Your task to perform on an android device: toggle javascript in the chrome app Image 0: 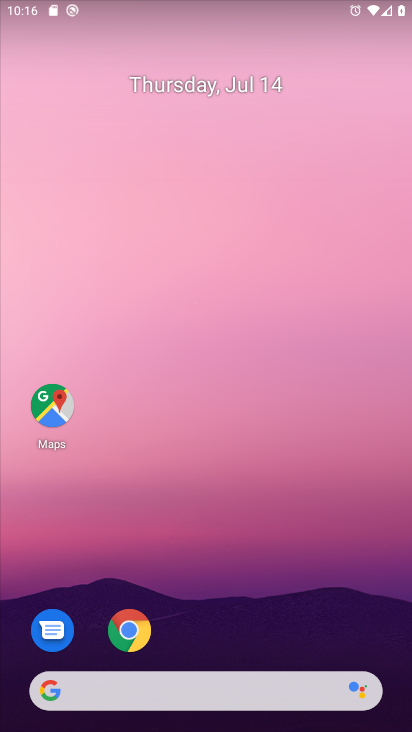
Step 0: click (245, 79)
Your task to perform on an android device: toggle javascript in the chrome app Image 1: 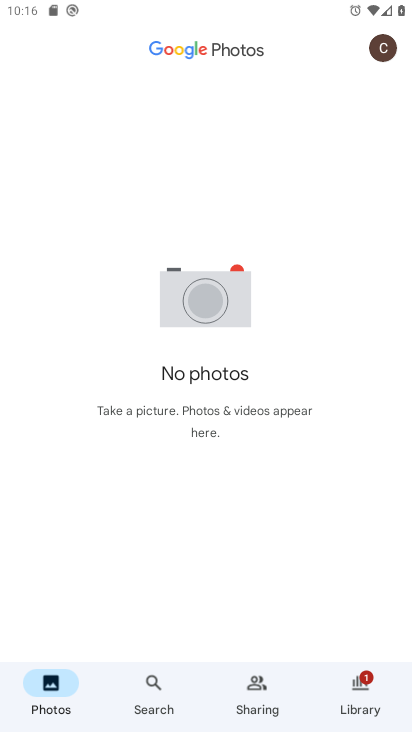
Step 1: press home button
Your task to perform on an android device: toggle javascript in the chrome app Image 2: 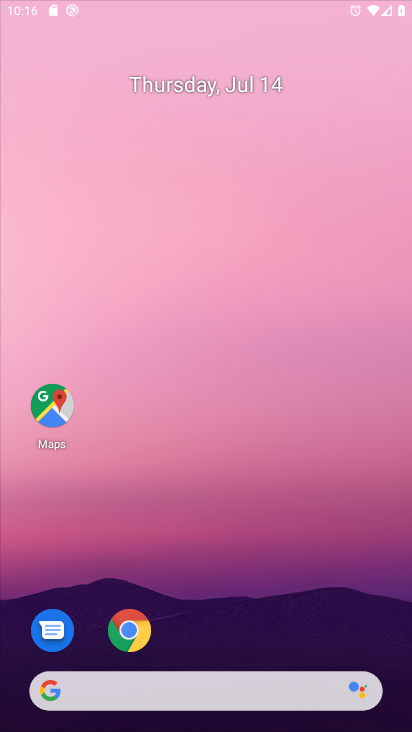
Step 2: drag from (175, 641) to (384, 73)
Your task to perform on an android device: toggle javascript in the chrome app Image 3: 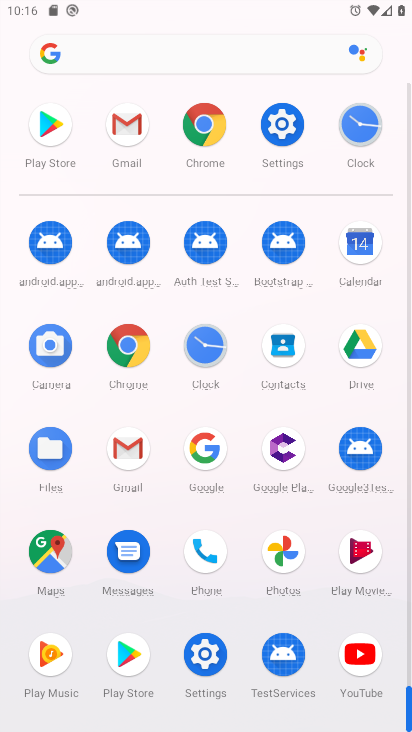
Step 3: drag from (165, 612) to (224, 249)
Your task to perform on an android device: toggle javascript in the chrome app Image 4: 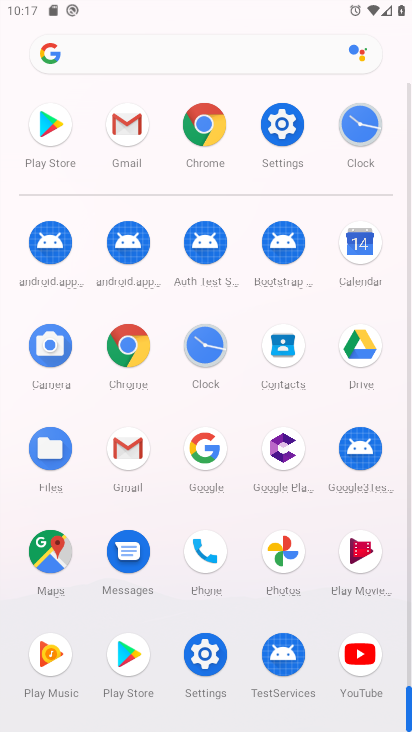
Step 4: click (123, 338)
Your task to perform on an android device: toggle javascript in the chrome app Image 5: 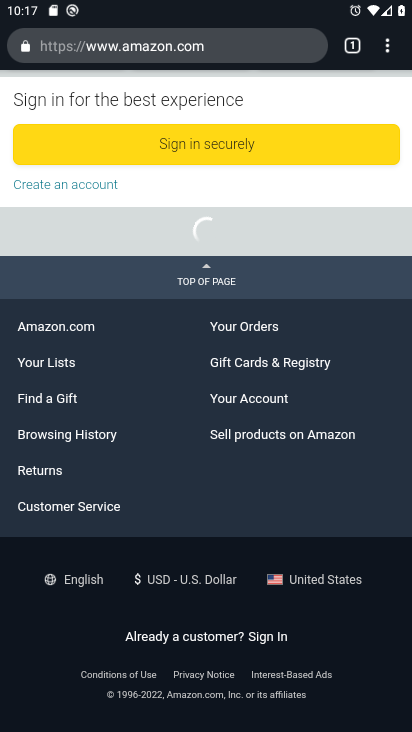
Step 5: click (378, 46)
Your task to perform on an android device: toggle javascript in the chrome app Image 6: 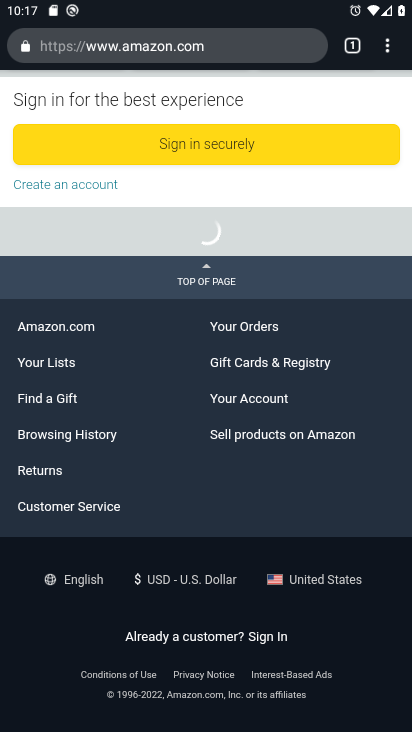
Step 6: click (390, 42)
Your task to perform on an android device: toggle javascript in the chrome app Image 7: 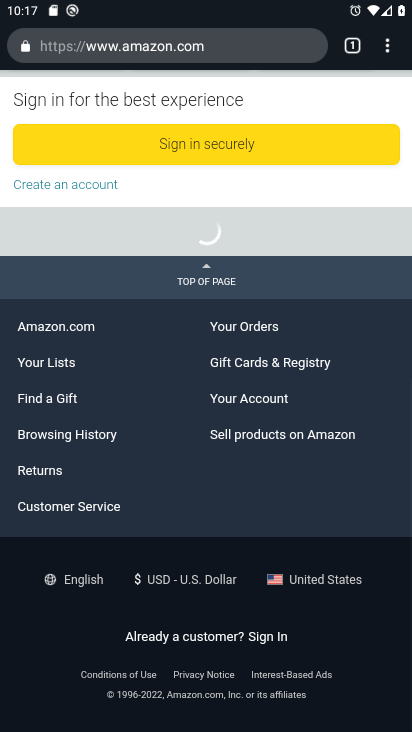
Step 7: drag from (384, 55) to (226, 552)
Your task to perform on an android device: toggle javascript in the chrome app Image 8: 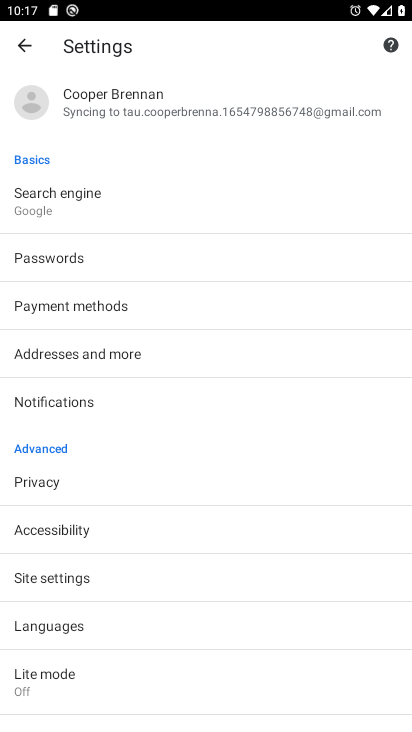
Step 8: click (86, 597)
Your task to perform on an android device: toggle javascript in the chrome app Image 9: 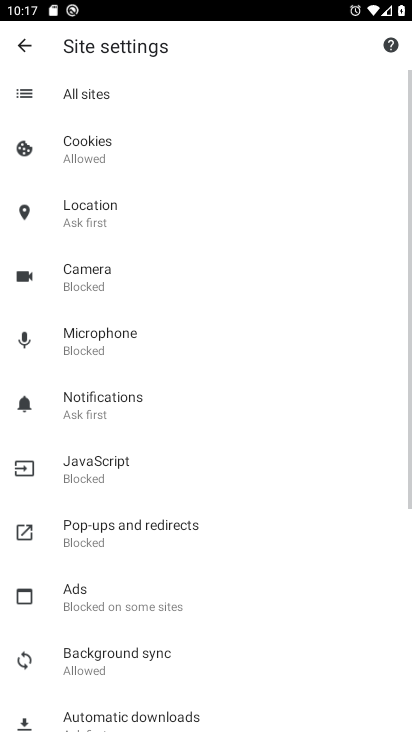
Step 9: click (117, 461)
Your task to perform on an android device: toggle javascript in the chrome app Image 10: 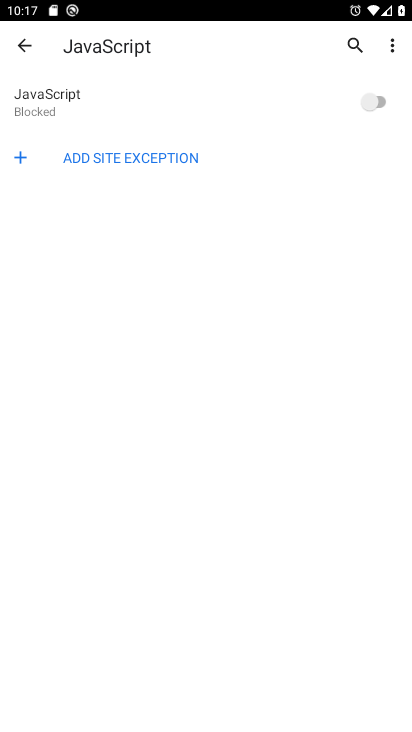
Step 10: click (367, 93)
Your task to perform on an android device: toggle javascript in the chrome app Image 11: 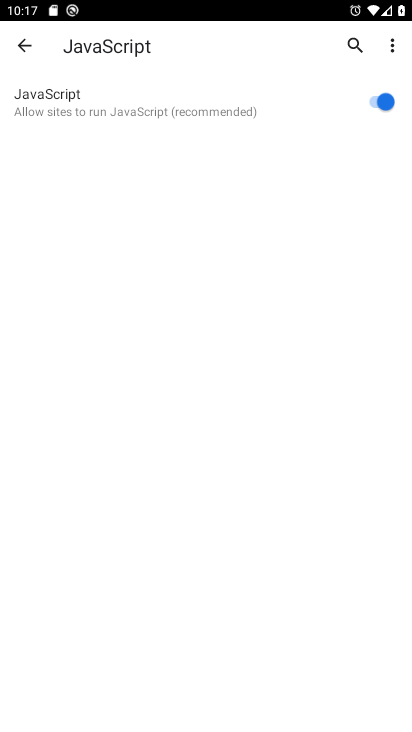
Step 11: task complete